Your task to perform on an android device: Open the stopwatch Image 0: 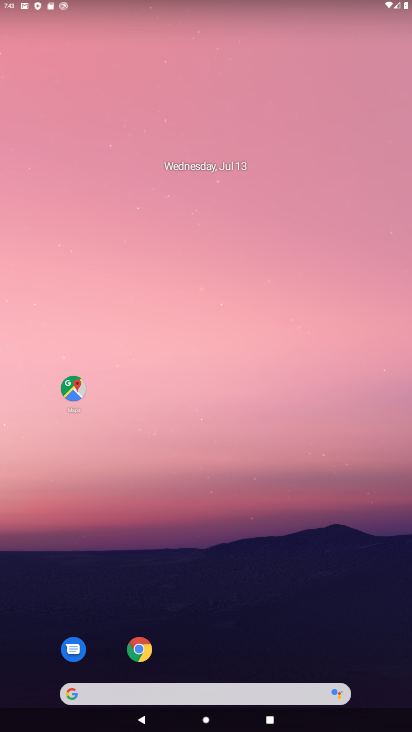
Step 0: drag from (209, 611) to (209, 54)
Your task to perform on an android device: Open the stopwatch Image 1: 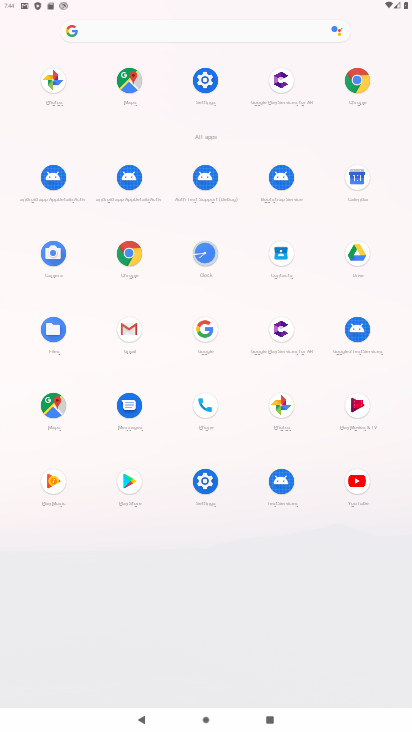
Step 1: click (207, 258)
Your task to perform on an android device: Open the stopwatch Image 2: 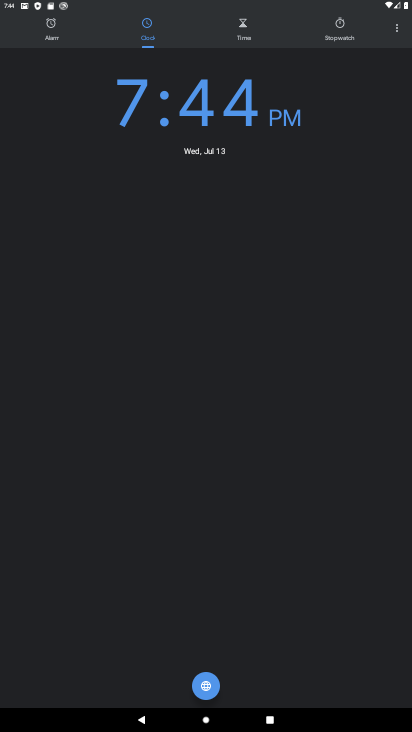
Step 2: click (336, 34)
Your task to perform on an android device: Open the stopwatch Image 3: 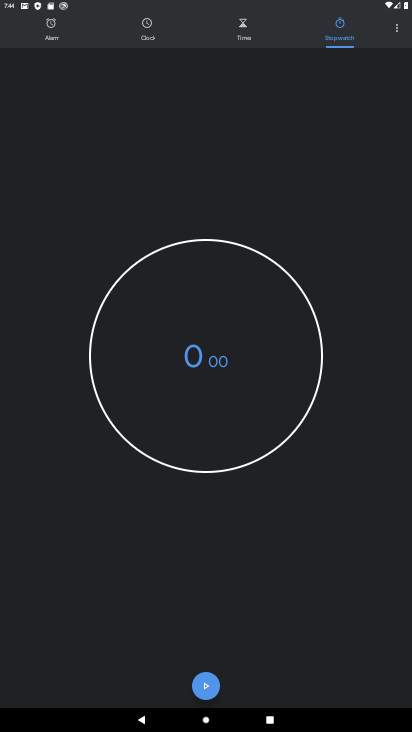
Step 3: click (213, 682)
Your task to perform on an android device: Open the stopwatch Image 4: 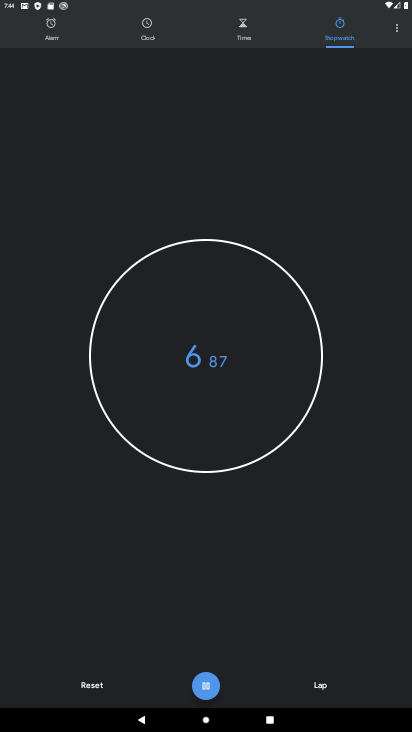
Step 4: task complete